Your task to perform on an android device: Go to ESPN.com Image 0: 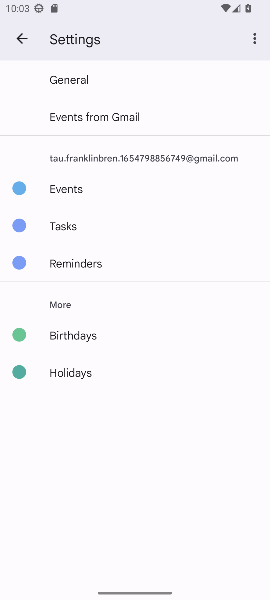
Step 0: press home button
Your task to perform on an android device: Go to ESPN.com Image 1: 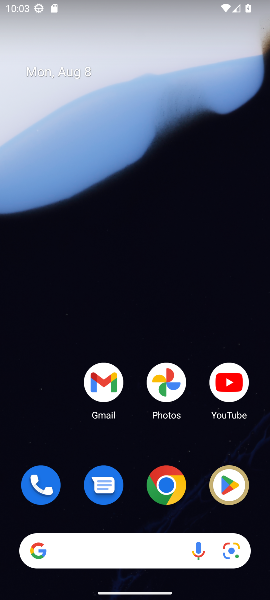
Step 1: drag from (199, 504) to (173, 2)
Your task to perform on an android device: Go to ESPN.com Image 2: 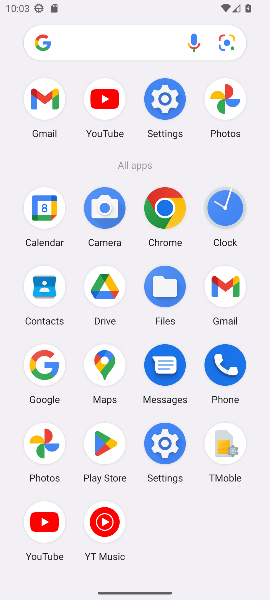
Step 2: click (161, 200)
Your task to perform on an android device: Go to ESPN.com Image 3: 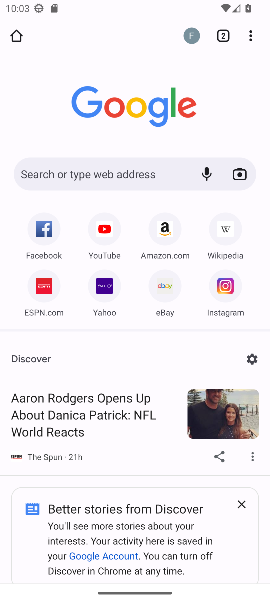
Step 3: click (163, 173)
Your task to perform on an android device: Go to ESPN.com Image 4: 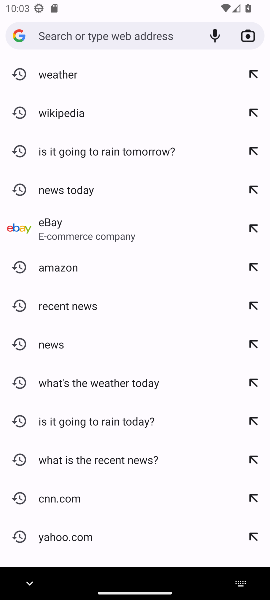
Step 4: type " ESPN.com"
Your task to perform on an android device: Go to ESPN.com Image 5: 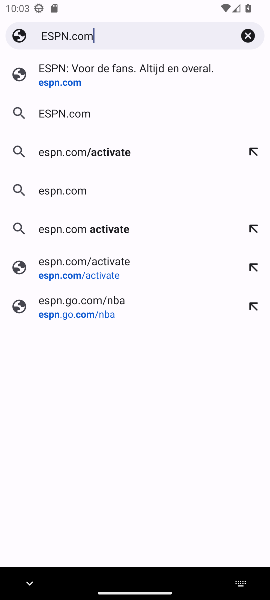
Step 5: click (52, 81)
Your task to perform on an android device: Go to ESPN.com Image 6: 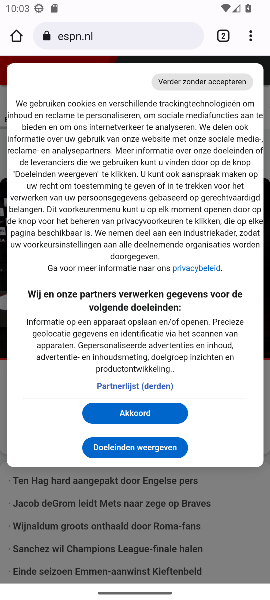
Step 6: click (130, 405)
Your task to perform on an android device: Go to ESPN.com Image 7: 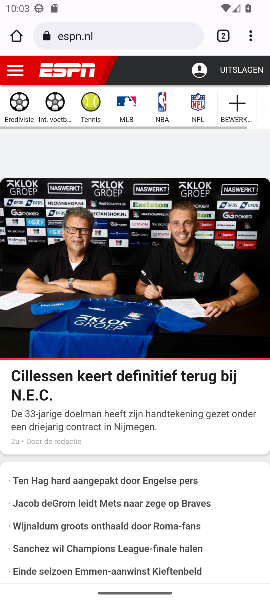
Step 7: task complete